Your task to perform on an android device: Open settings on Google Maps Image 0: 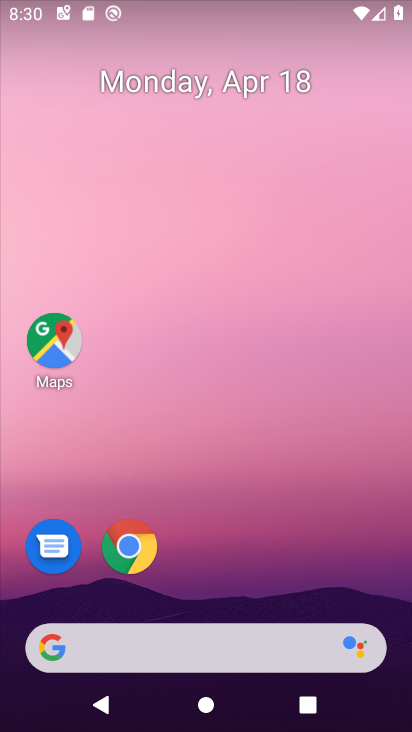
Step 0: click (60, 373)
Your task to perform on an android device: Open settings on Google Maps Image 1: 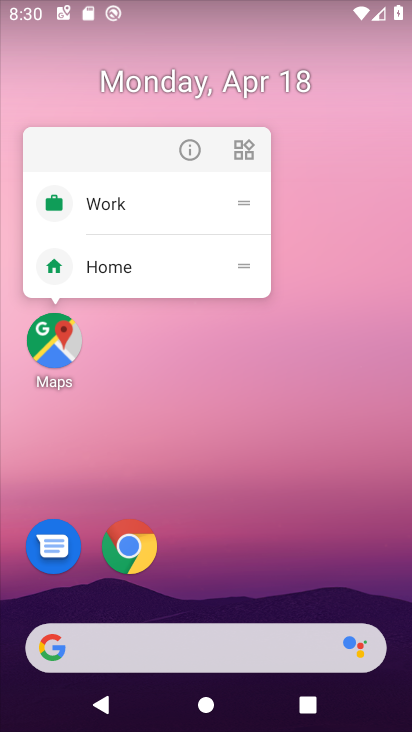
Step 1: click (60, 373)
Your task to perform on an android device: Open settings on Google Maps Image 2: 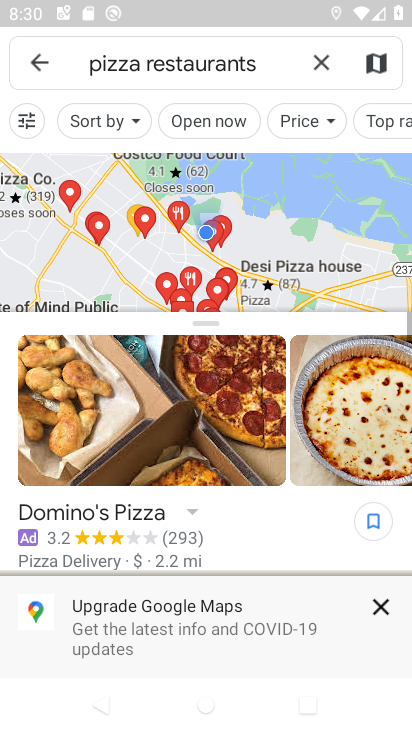
Step 2: click (46, 64)
Your task to perform on an android device: Open settings on Google Maps Image 3: 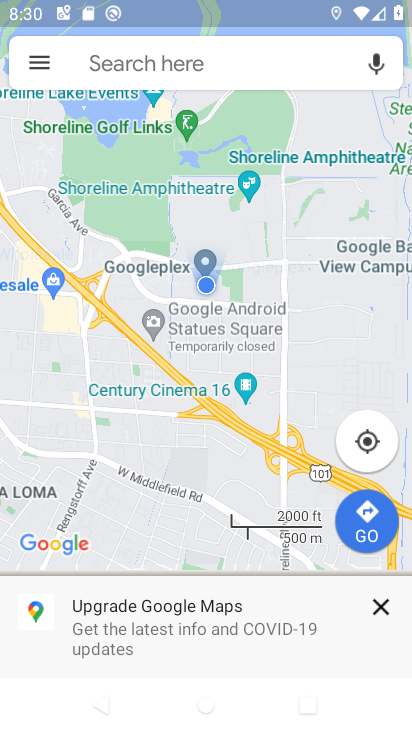
Step 3: click (46, 64)
Your task to perform on an android device: Open settings on Google Maps Image 4: 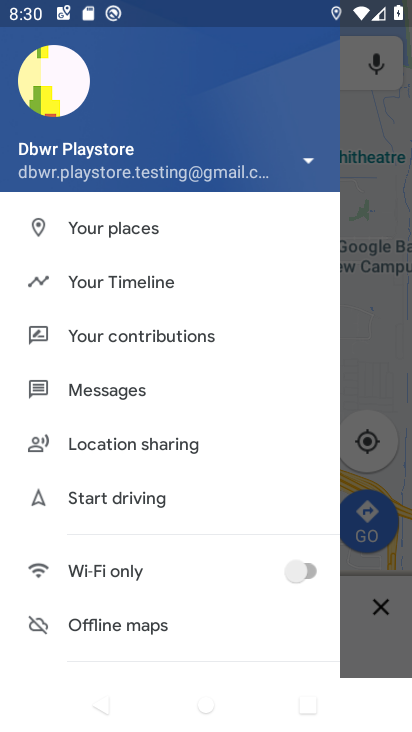
Step 4: click (209, 280)
Your task to perform on an android device: Open settings on Google Maps Image 5: 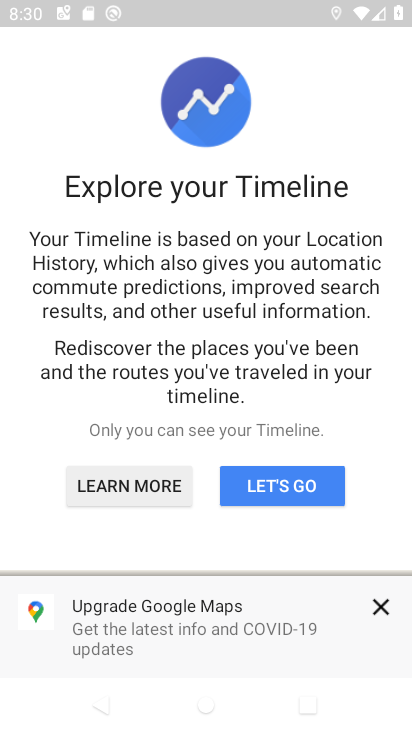
Step 5: click (381, 614)
Your task to perform on an android device: Open settings on Google Maps Image 6: 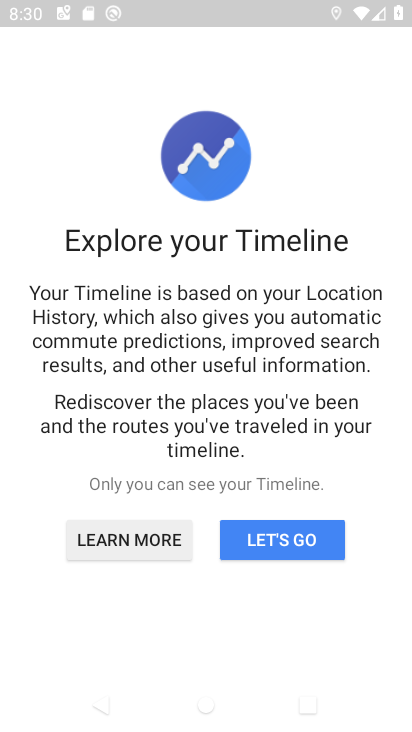
Step 6: click (279, 549)
Your task to perform on an android device: Open settings on Google Maps Image 7: 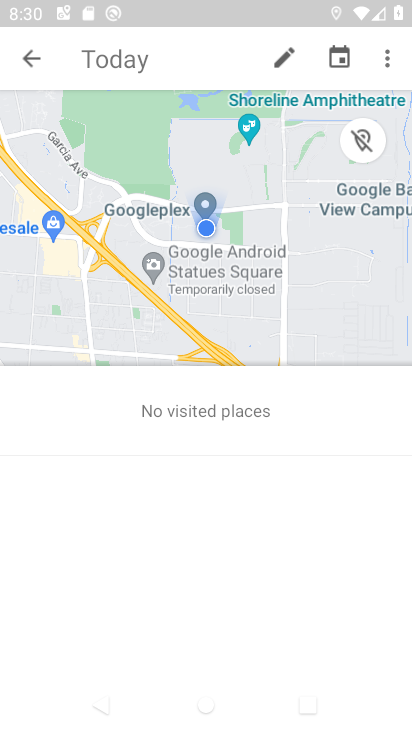
Step 7: click (379, 63)
Your task to perform on an android device: Open settings on Google Maps Image 8: 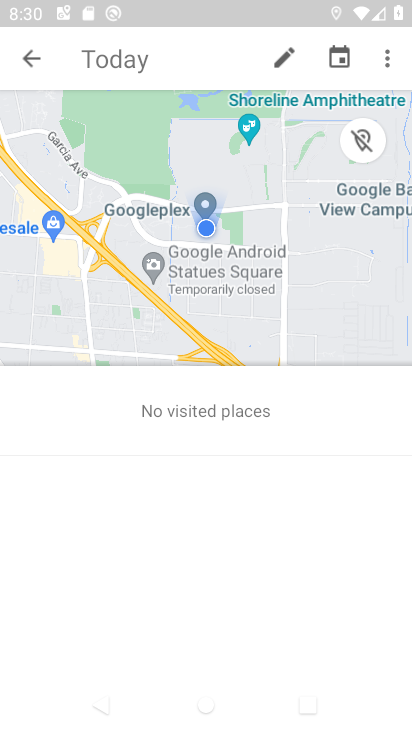
Step 8: click (388, 62)
Your task to perform on an android device: Open settings on Google Maps Image 9: 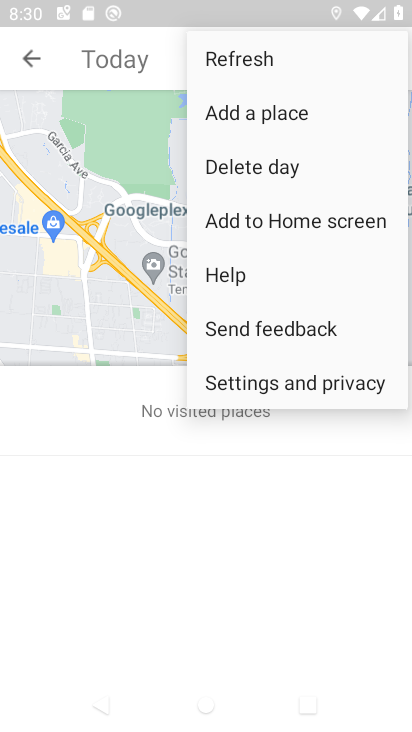
Step 9: click (359, 388)
Your task to perform on an android device: Open settings on Google Maps Image 10: 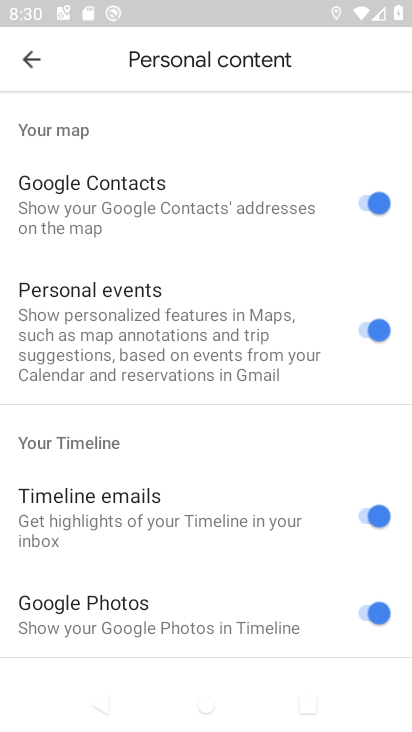
Step 10: task complete